Your task to perform on an android device: uninstall "Google Calendar" Image 0: 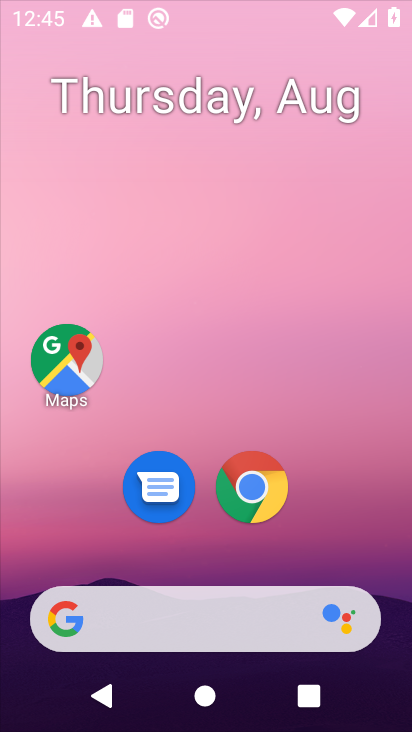
Step 0: press home button
Your task to perform on an android device: uninstall "Google Calendar" Image 1: 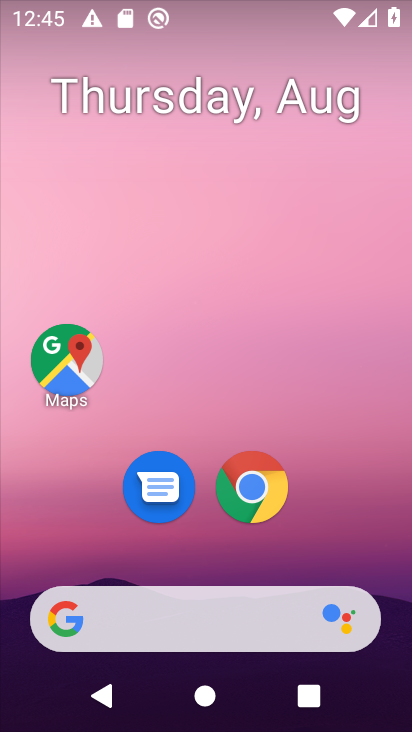
Step 1: drag from (207, 558) to (206, 6)
Your task to perform on an android device: uninstall "Google Calendar" Image 2: 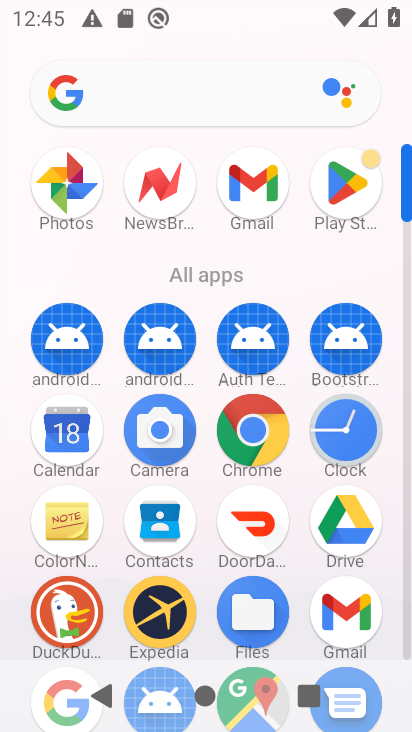
Step 2: click (67, 430)
Your task to perform on an android device: uninstall "Google Calendar" Image 3: 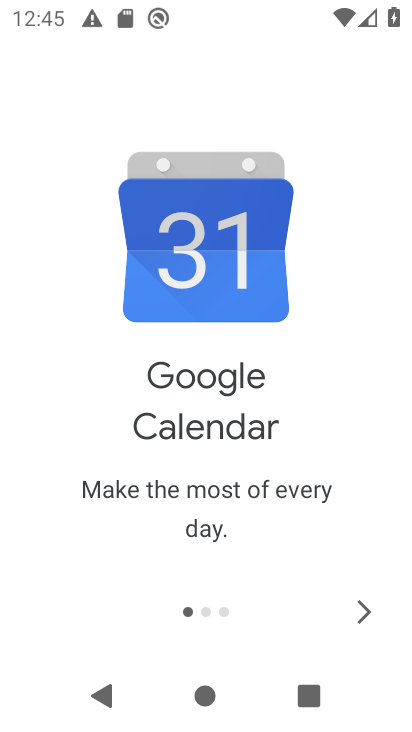
Step 3: click (355, 605)
Your task to perform on an android device: uninstall "Google Calendar" Image 4: 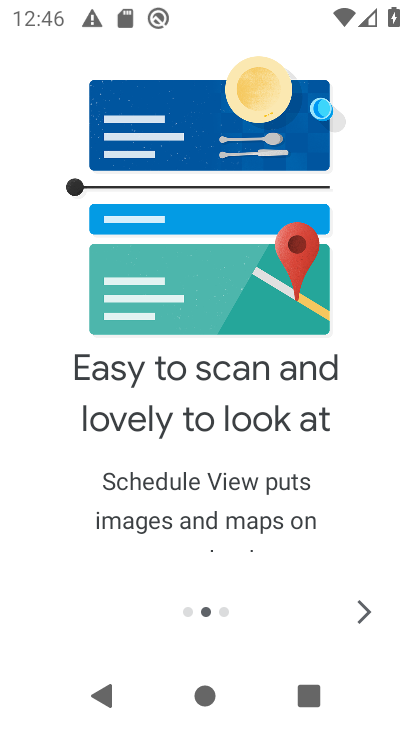
Step 4: click (357, 606)
Your task to perform on an android device: uninstall "Google Calendar" Image 5: 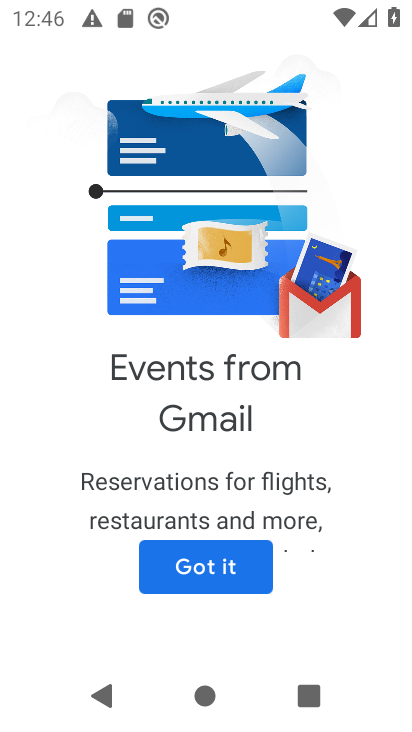
Step 5: click (219, 572)
Your task to perform on an android device: uninstall "Google Calendar" Image 6: 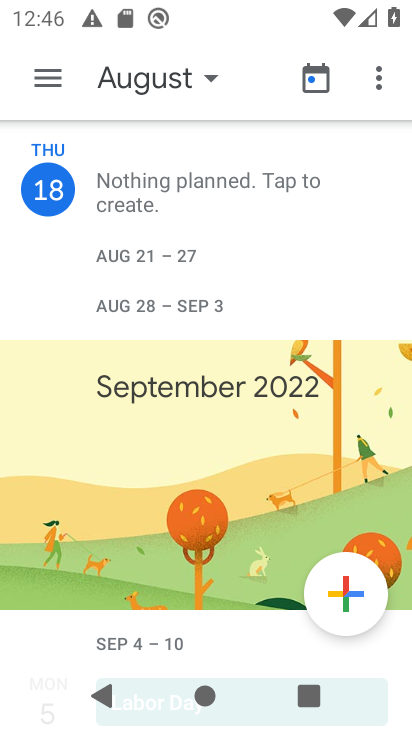
Step 6: press home button
Your task to perform on an android device: uninstall "Google Calendar" Image 7: 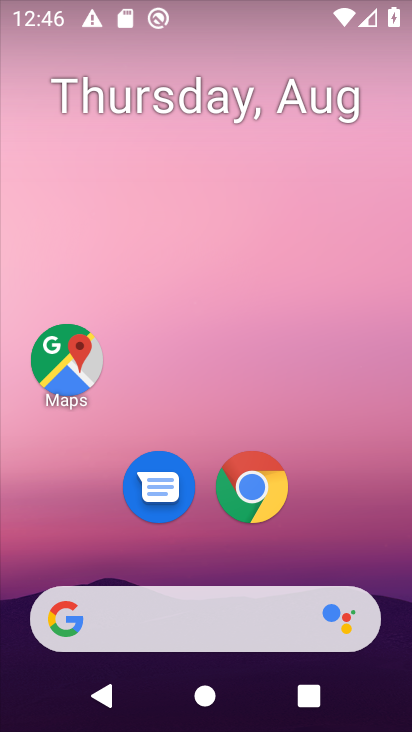
Step 7: drag from (209, 554) to (259, 12)
Your task to perform on an android device: uninstall "Google Calendar" Image 8: 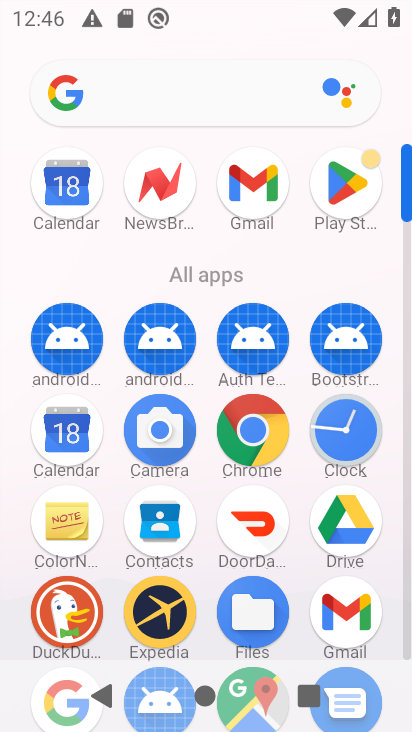
Step 8: click (341, 175)
Your task to perform on an android device: uninstall "Google Calendar" Image 9: 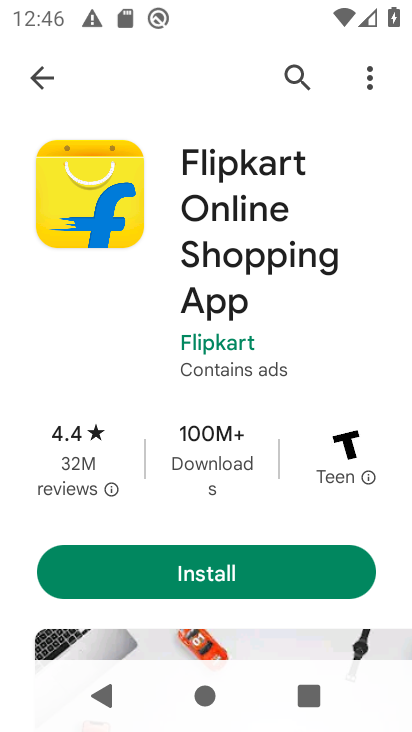
Step 9: click (289, 63)
Your task to perform on an android device: uninstall "Google Calendar" Image 10: 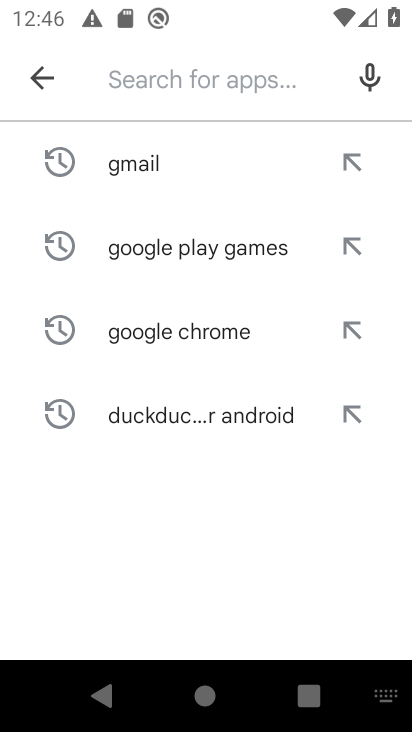
Step 10: type "Google Calendar"
Your task to perform on an android device: uninstall "Google Calendar" Image 11: 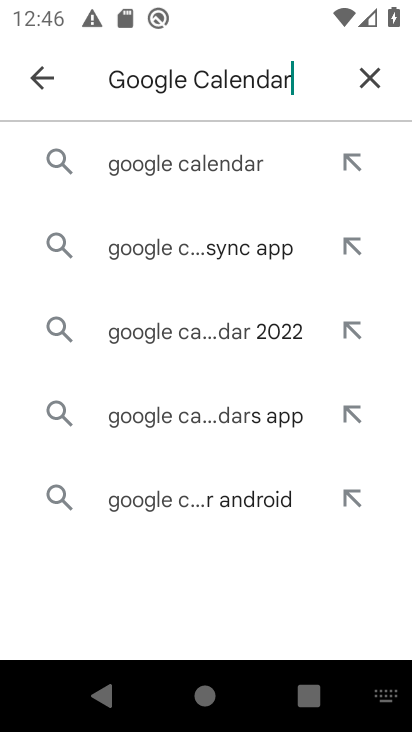
Step 11: click (275, 156)
Your task to perform on an android device: uninstall "Google Calendar" Image 12: 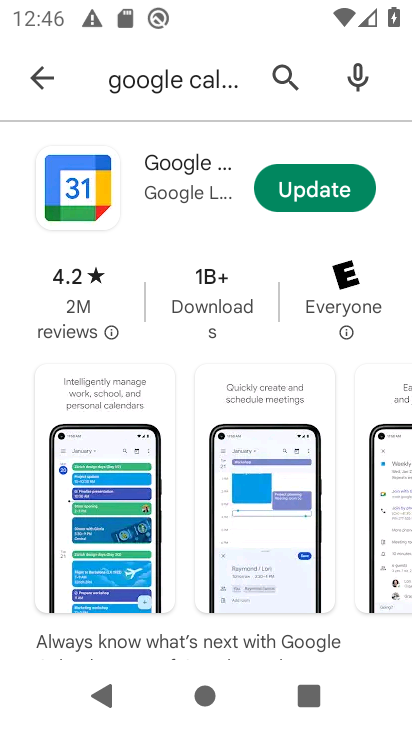
Step 12: task complete